Your task to perform on an android device: Open calendar and show me the fourth week of next month Image 0: 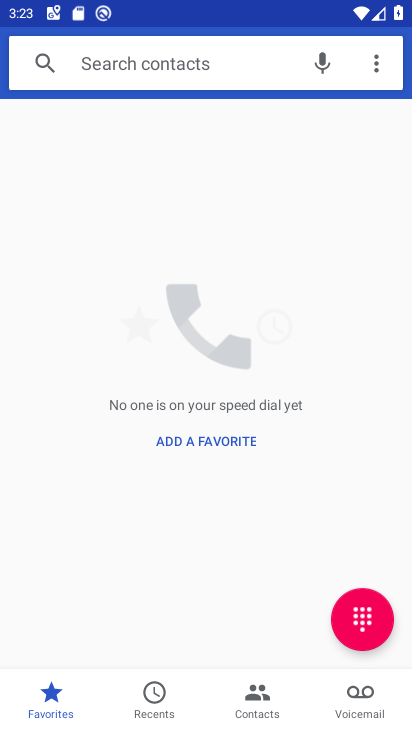
Step 0: press home button
Your task to perform on an android device: Open calendar and show me the fourth week of next month Image 1: 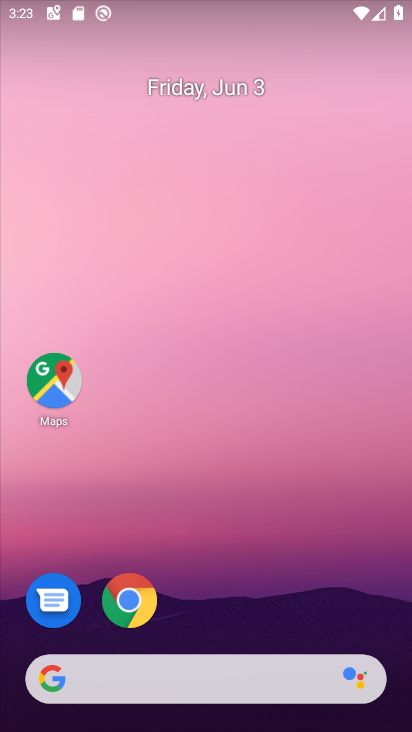
Step 1: drag from (246, 579) to (284, 133)
Your task to perform on an android device: Open calendar and show me the fourth week of next month Image 2: 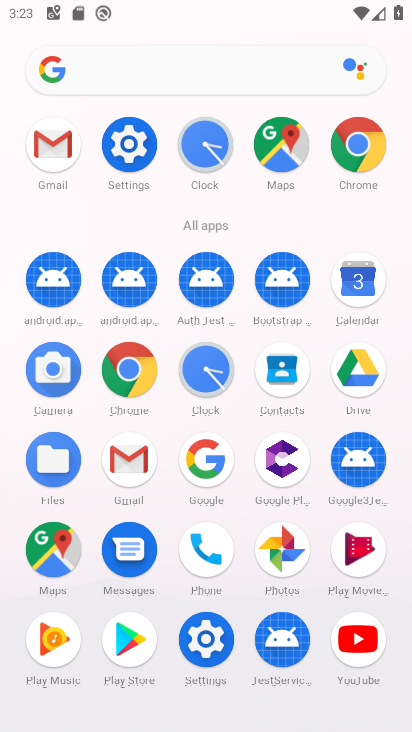
Step 2: click (353, 290)
Your task to perform on an android device: Open calendar and show me the fourth week of next month Image 3: 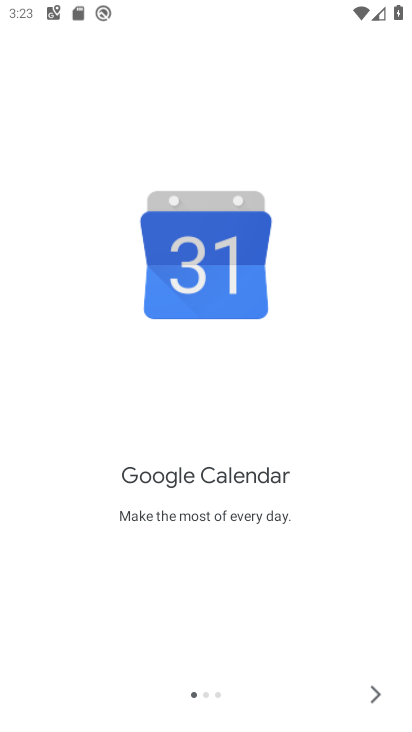
Step 3: click (369, 683)
Your task to perform on an android device: Open calendar and show me the fourth week of next month Image 4: 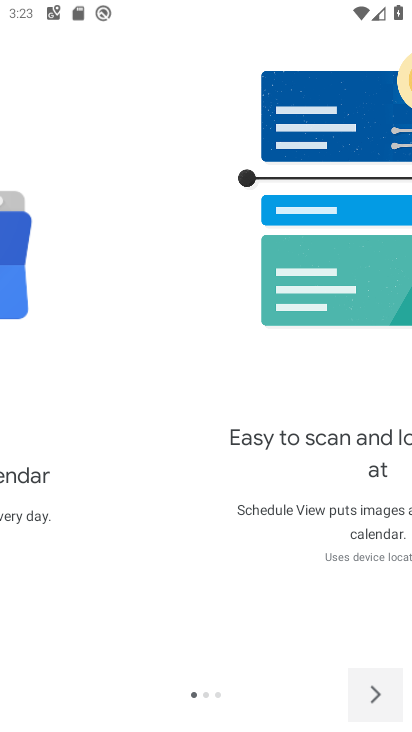
Step 4: click (368, 684)
Your task to perform on an android device: Open calendar and show me the fourth week of next month Image 5: 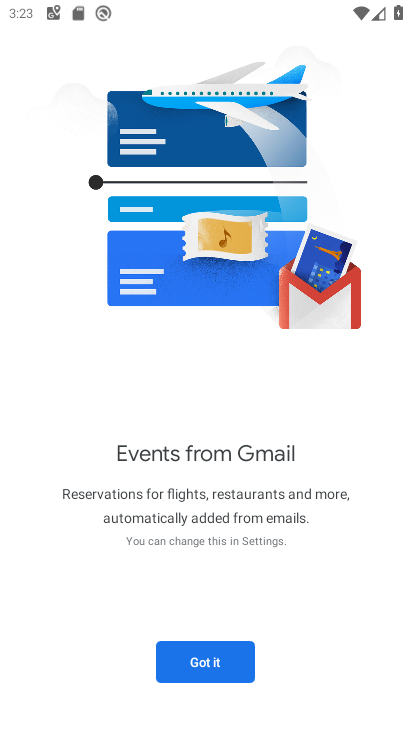
Step 5: click (368, 684)
Your task to perform on an android device: Open calendar and show me the fourth week of next month Image 6: 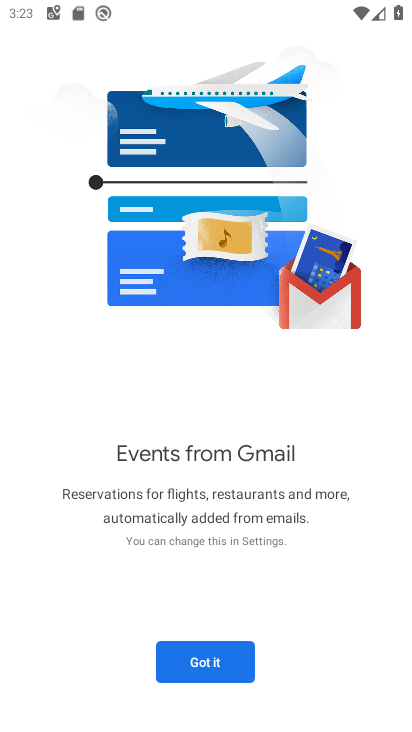
Step 6: click (220, 650)
Your task to perform on an android device: Open calendar and show me the fourth week of next month Image 7: 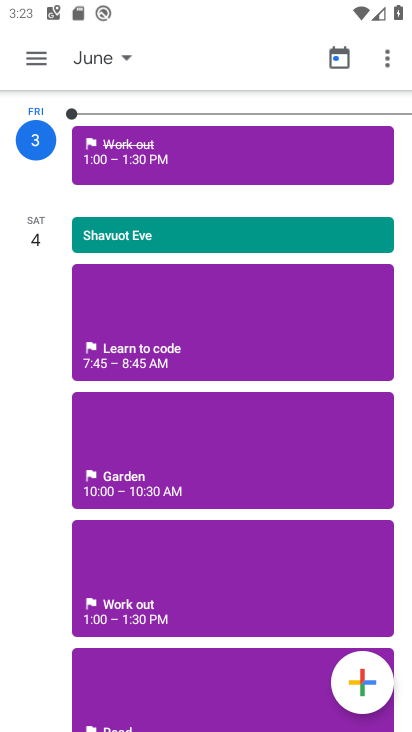
Step 7: click (224, 656)
Your task to perform on an android device: Open calendar and show me the fourth week of next month Image 8: 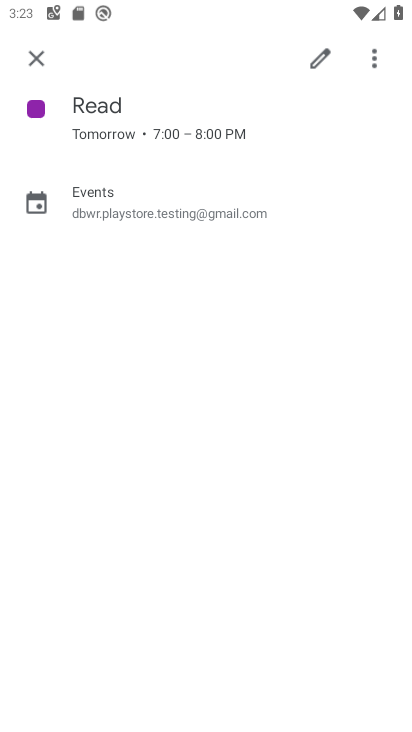
Step 8: click (29, 65)
Your task to perform on an android device: Open calendar and show me the fourth week of next month Image 9: 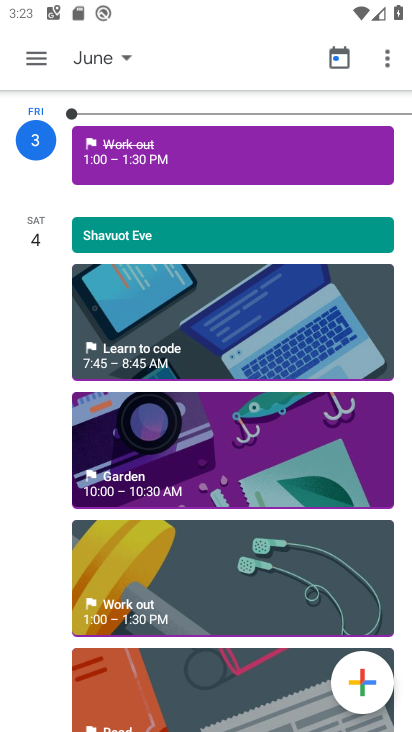
Step 9: click (86, 59)
Your task to perform on an android device: Open calendar and show me the fourth week of next month Image 10: 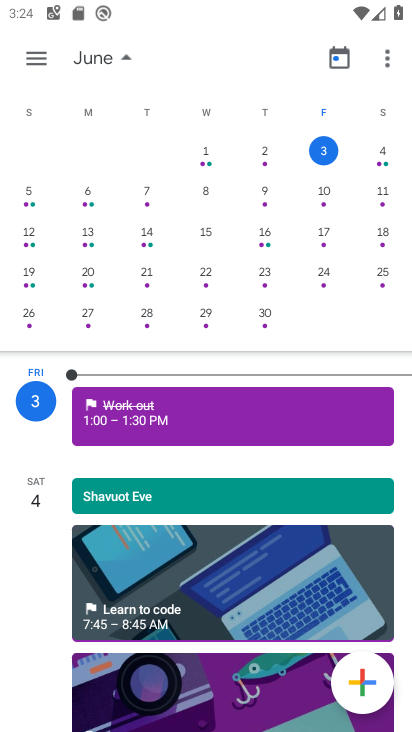
Step 10: drag from (370, 287) to (100, 264)
Your task to perform on an android device: Open calendar and show me the fourth week of next month Image 11: 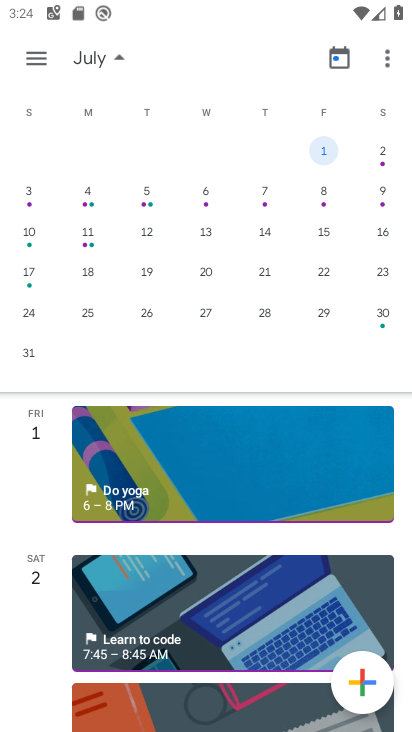
Step 11: click (29, 314)
Your task to perform on an android device: Open calendar and show me the fourth week of next month Image 12: 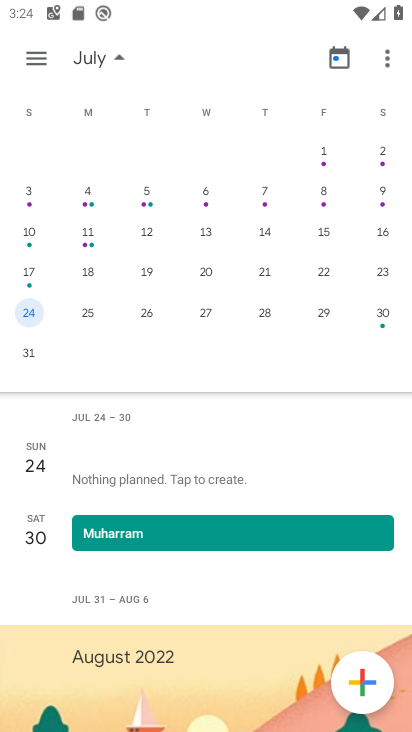
Step 12: click (35, 65)
Your task to perform on an android device: Open calendar and show me the fourth week of next month Image 13: 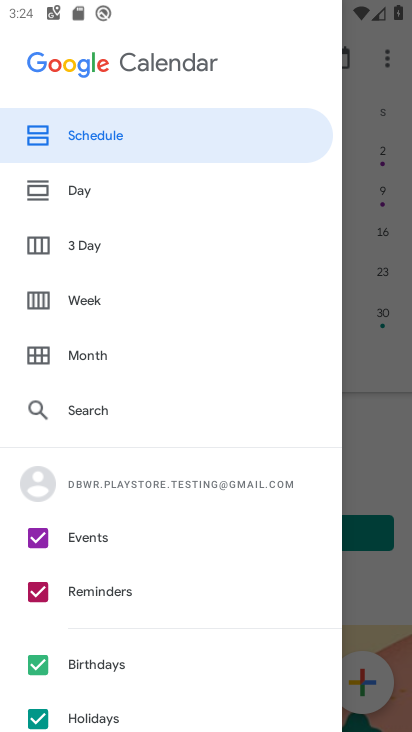
Step 13: click (93, 295)
Your task to perform on an android device: Open calendar and show me the fourth week of next month Image 14: 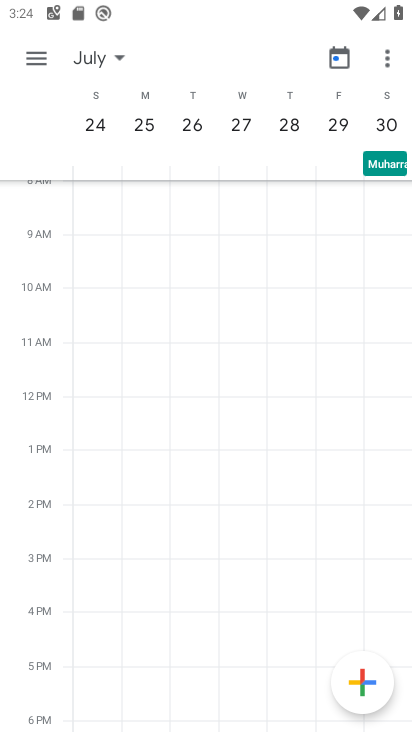
Step 14: task complete